Your task to perform on an android device: Is it going to rain tomorrow? Image 0: 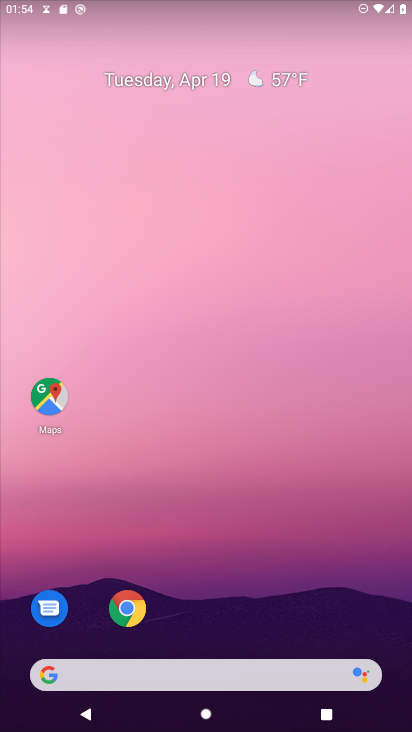
Step 0: click (133, 603)
Your task to perform on an android device: Is it going to rain tomorrow? Image 1: 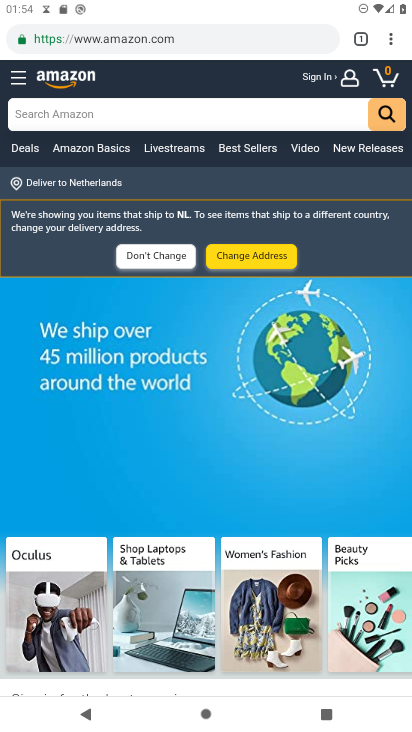
Step 1: click (353, 24)
Your task to perform on an android device: Is it going to rain tomorrow? Image 2: 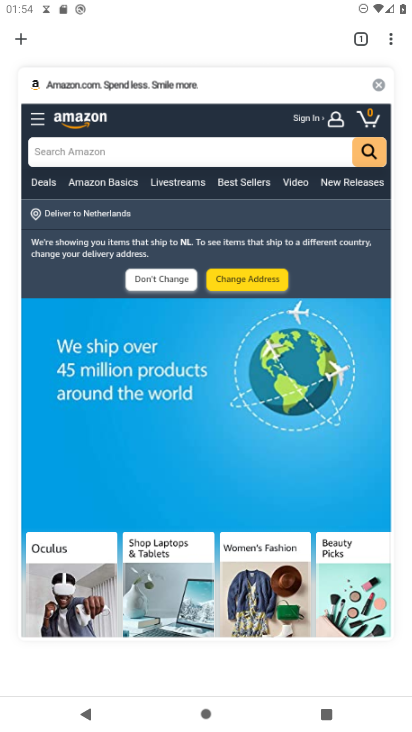
Step 2: click (25, 44)
Your task to perform on an android device: Is it going to rain tomorrow? Image 3: 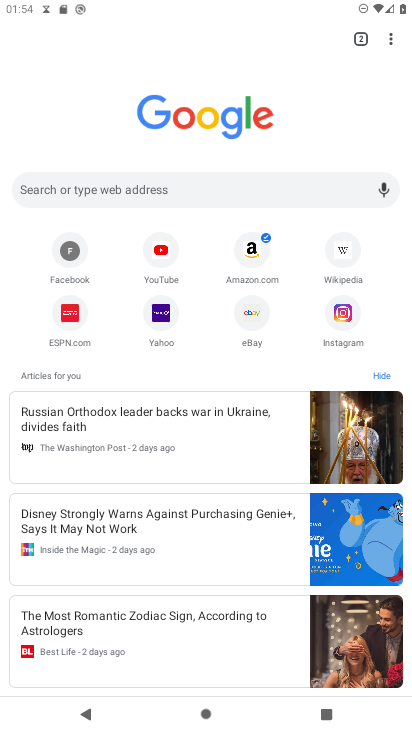
Step 3: click (127, 195)
Your task to perform on an android device: Is it going to rain tomorrow? Image 4: 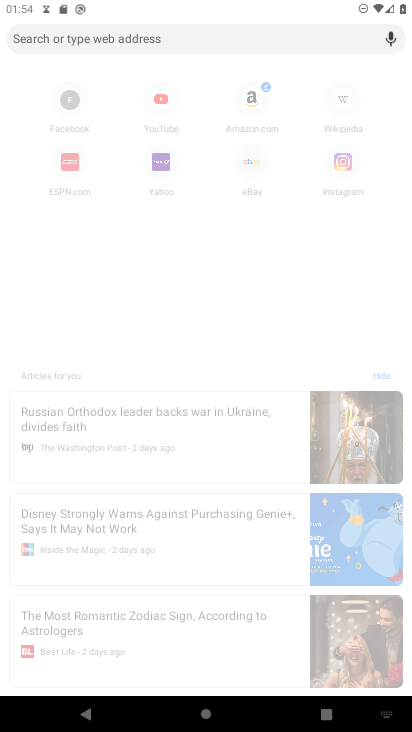
Step 4: type "is it going to rain tomorrow"
Your task to perform on an android device: Is it going to rain tomorrow? Image 5: 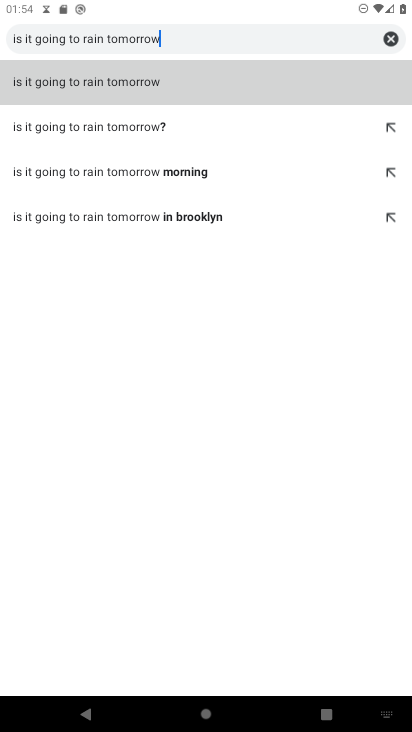
Step 5: click (78, 76)
Your task to perform on an android device: Is it going to rain tomorrow? Image 6: 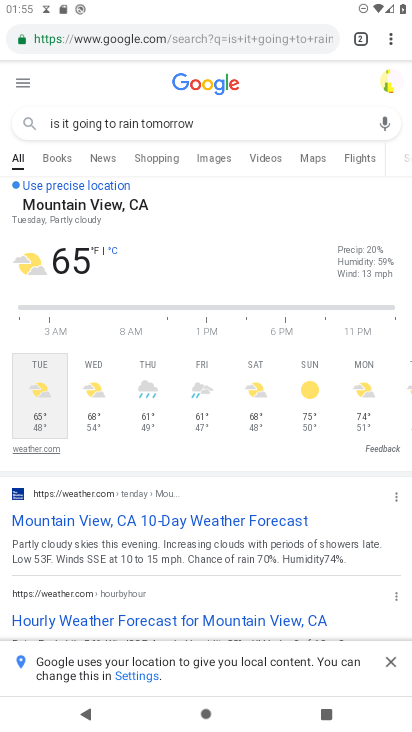
Step 6: task complete